Your task to perform on an android device: turn vacation reply on in the gmail app Image 0: 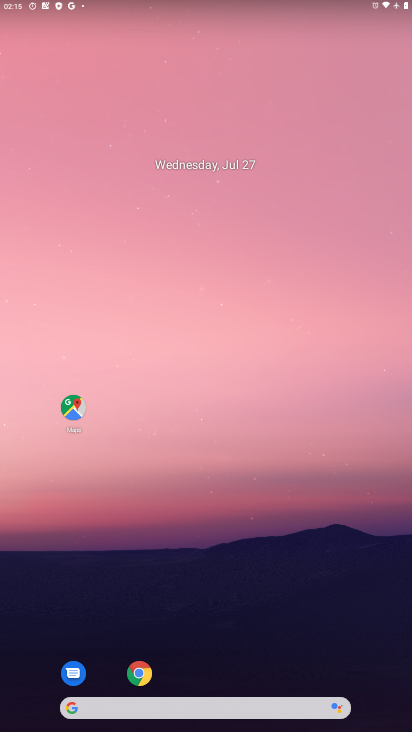
Step 0: drag from (210, 654) to (213, 40)
Your task to perform on an android device: turn vacation reply on in the gmail app Image 1: 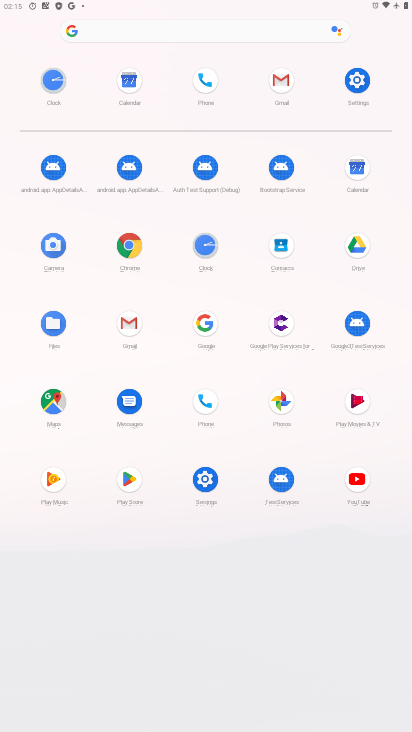
Step 1: click (282, 89)
Your task to perform on an android device: turn vacation reply on in the gmail app Image 2: 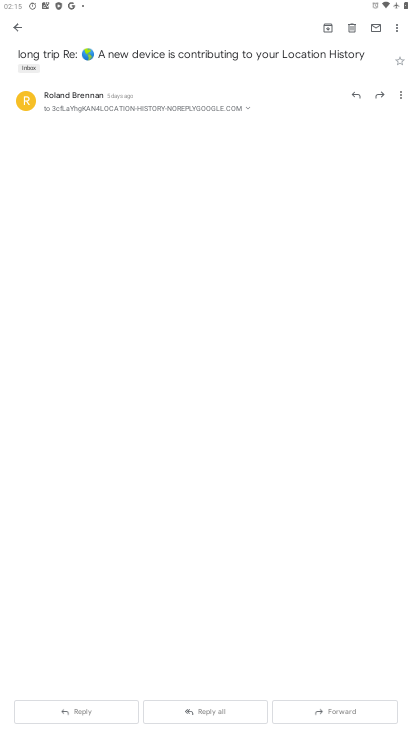
Step 2: click (19, 31)
Your task to perform on an android device: turn vacation reply on in the gmail app Image 3: 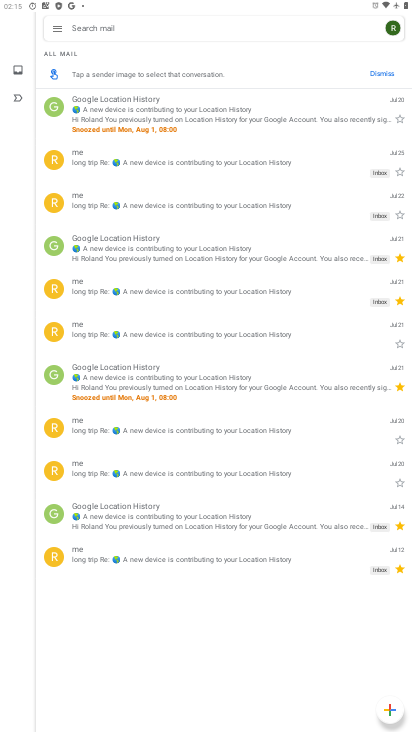
Step 3: click (61, 26)
Your task to perform on an android device: turn vacation reply on in the gmail app Image 4: 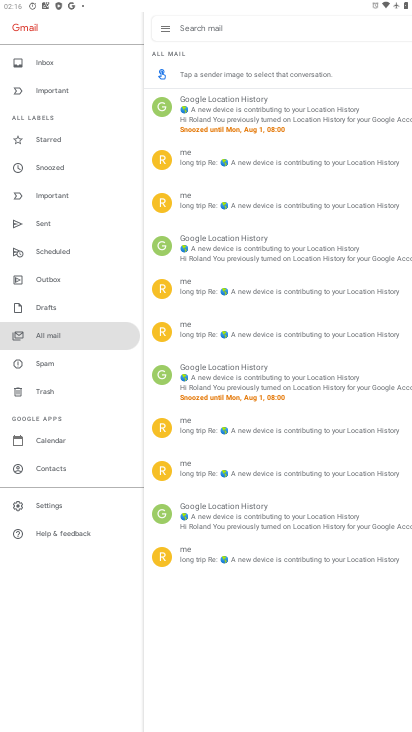
Step 4: click (40, 505)
Your task to perform on an android device: turn vacation reply on in the gmail app Image 5: 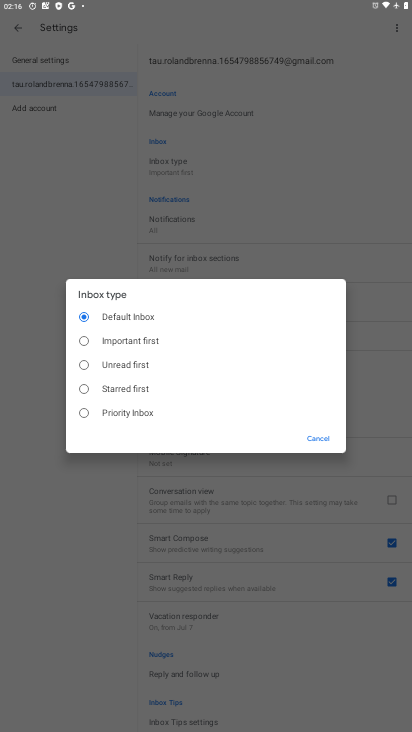
Step 5: click (307, 439)
Your task to perform on an android device: turn vacation reply on in the gmail app Image 6: 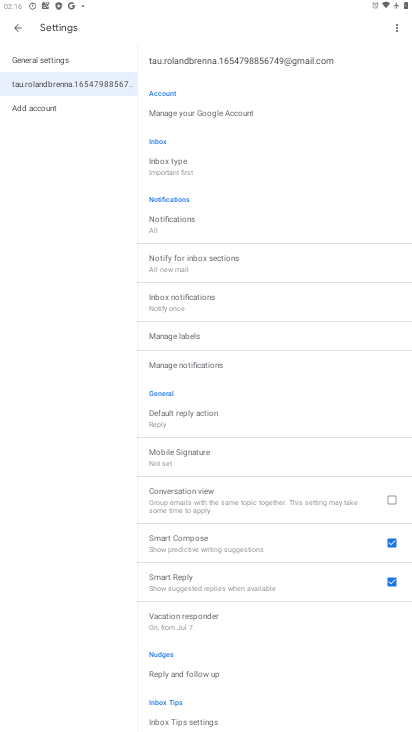
Step 6: click (175, 622)
Your task to perform on an android device: turn vacation reply on in the gmail app Image 7: 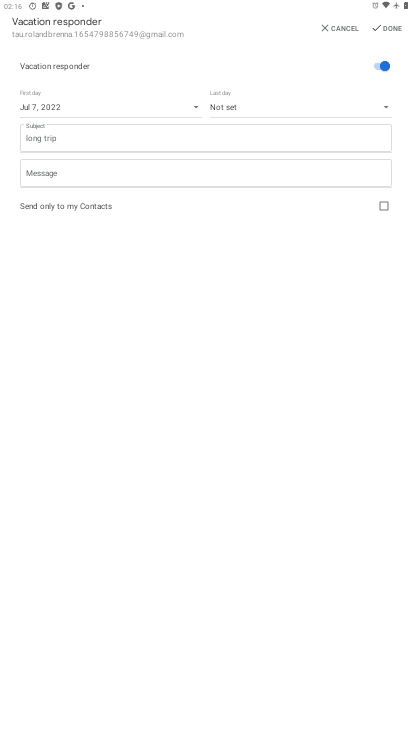
Step 7: click (388, 31)
Your task to perform on an android device: turn vacation reply on in the gmail app Image 8: 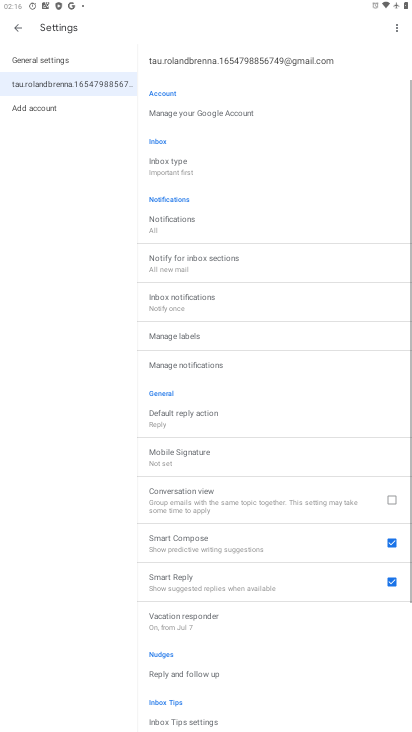
Step 8: task complete